Your task to perform on an android device: Open Chrome and go to the settings page Image 0: 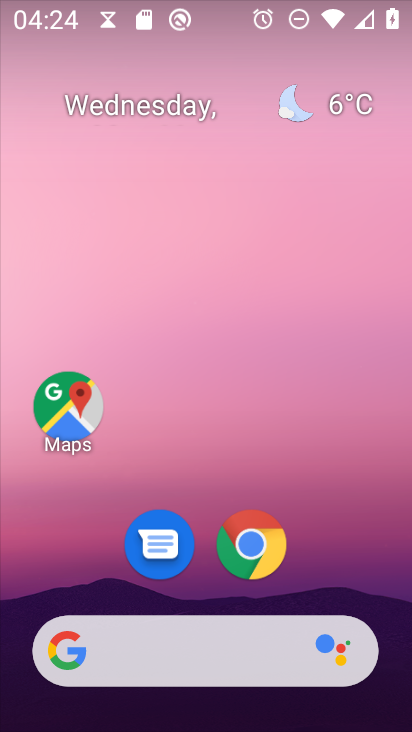
Step 0: drag from (325, 579) to (306, 85)
Your task to perform on an android device: Open Chrome and go to the settings page Image 1: 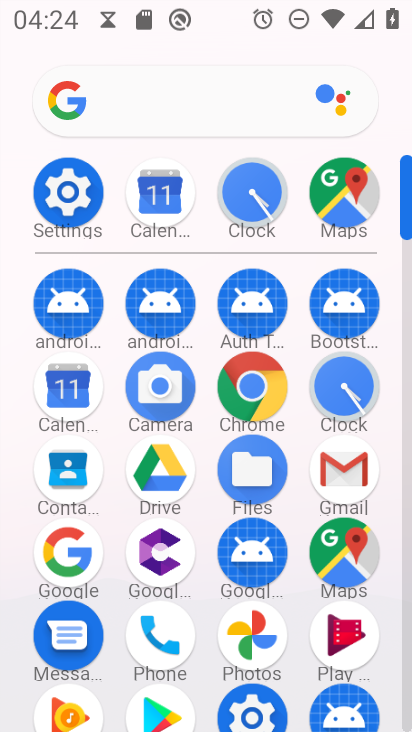
Step 1: click (249, 392)
Your task to perform on an android device: Open Chrome and go to the settings page Image 2: 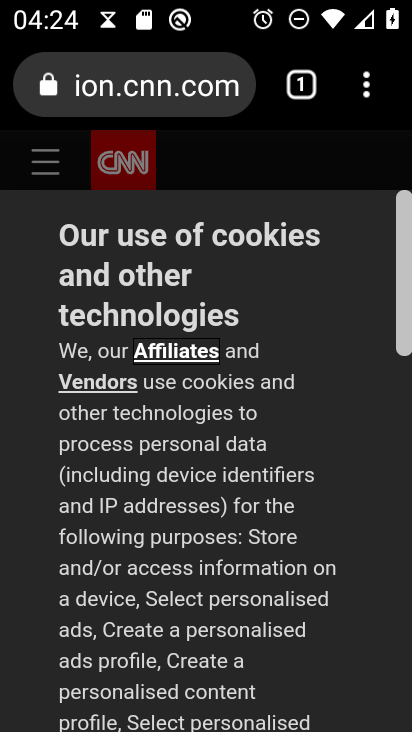
Step 2: click (352, 104)
Your task to perform on an android device: Open Chrome and go to the settings page Image 3: 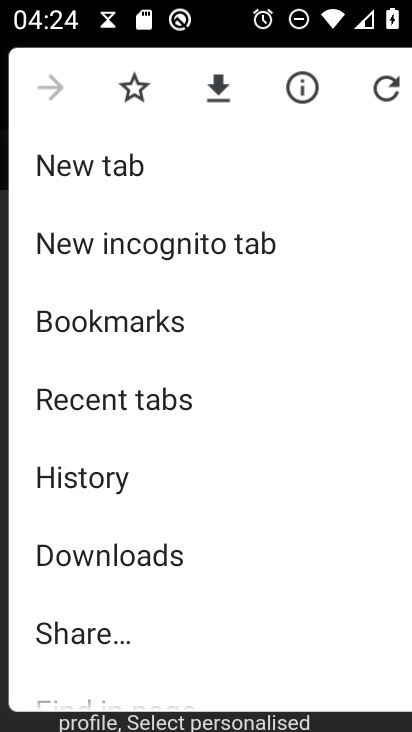
Step 3: drag from (187, 637) to (173, 310)
Your task to perform on an android device: Open Chrome and go to the settings page Image 4: 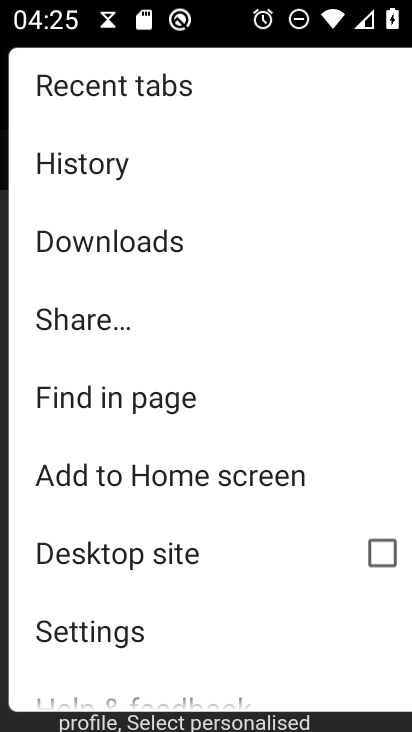
Step 4: click (148, 638)
Your task to perform on an android device: Open Chrome and go to the settings page Image 5: 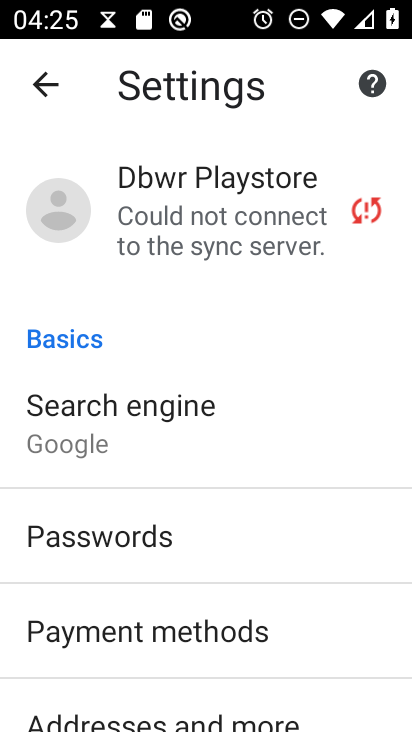
Step 5: task complete